Your task to perform on an android device: Open the clock Image 0: 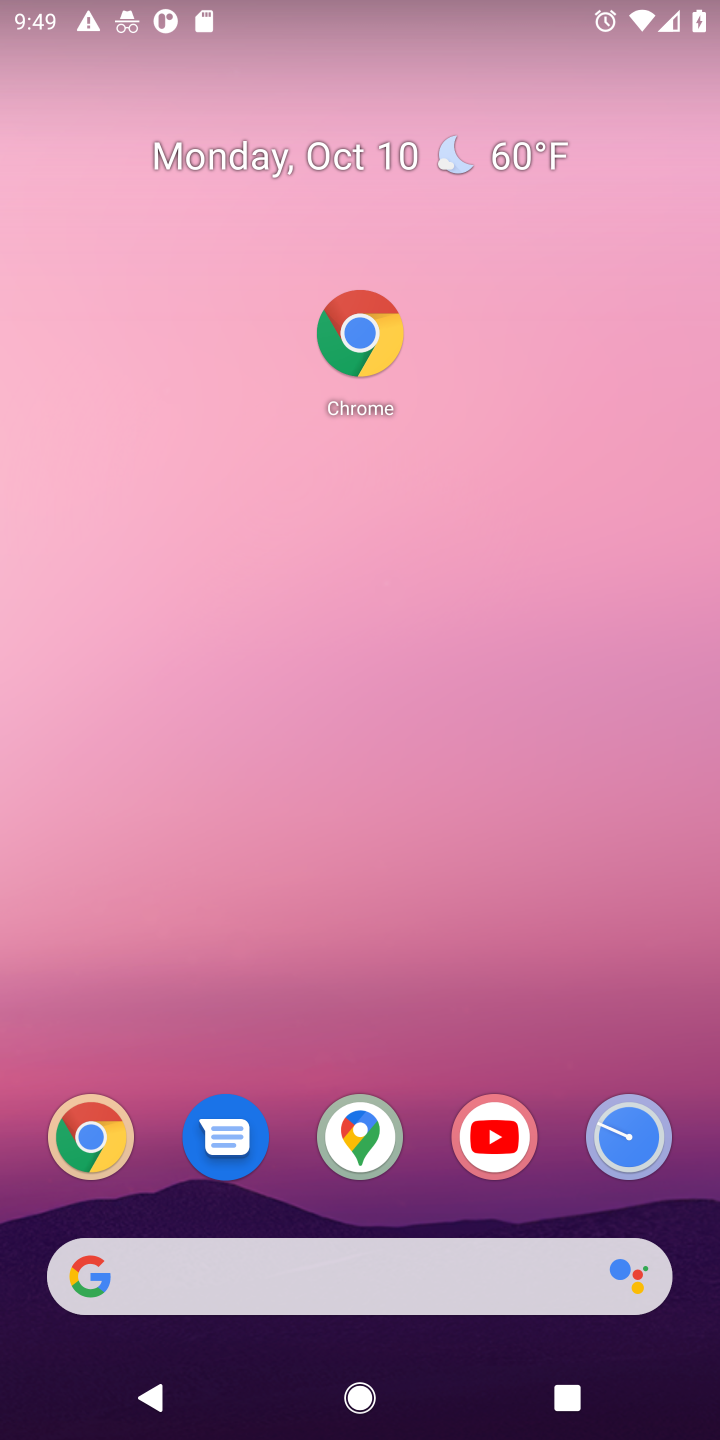
Step 0: click (629, 1138)
Your task to perform on an android device: Open the clock Image 1: 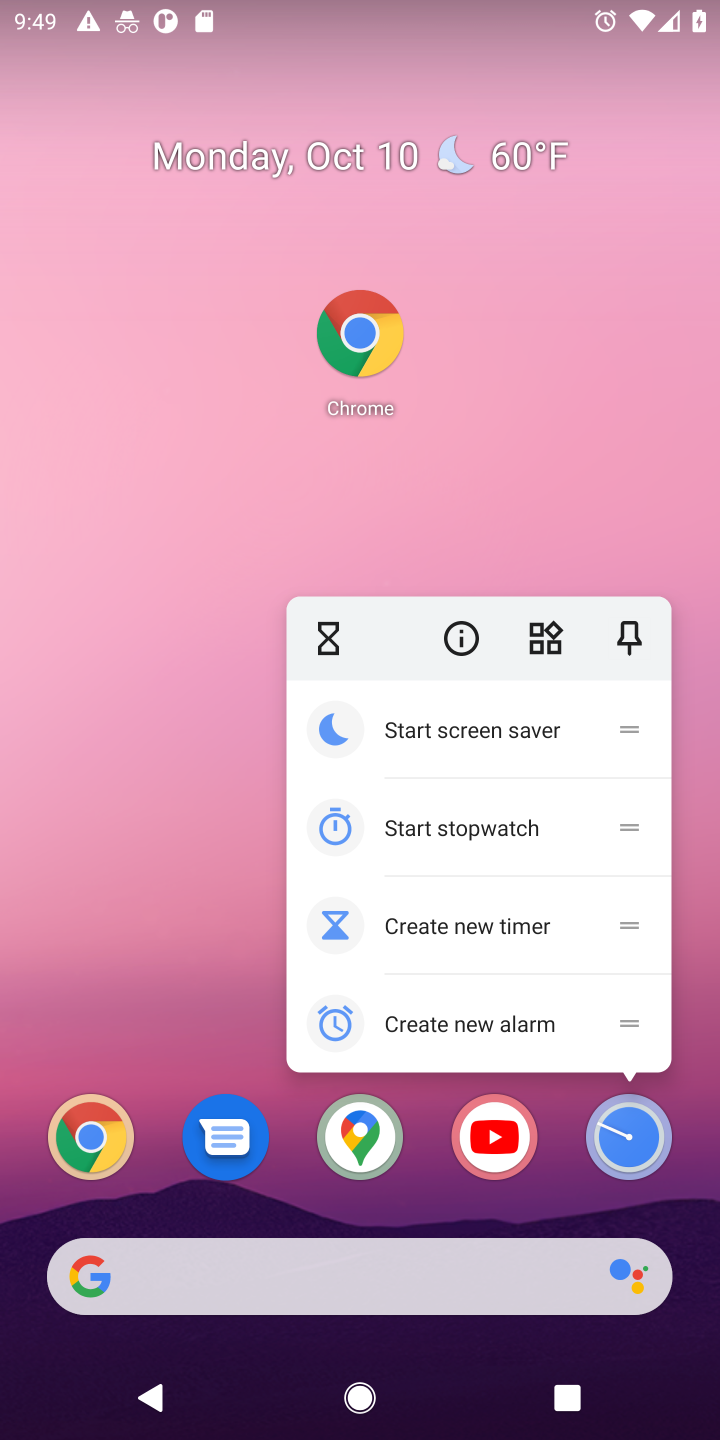
Step 1: click (628, 1132)
Your task to perform on an android device: Open the clock Image 2: 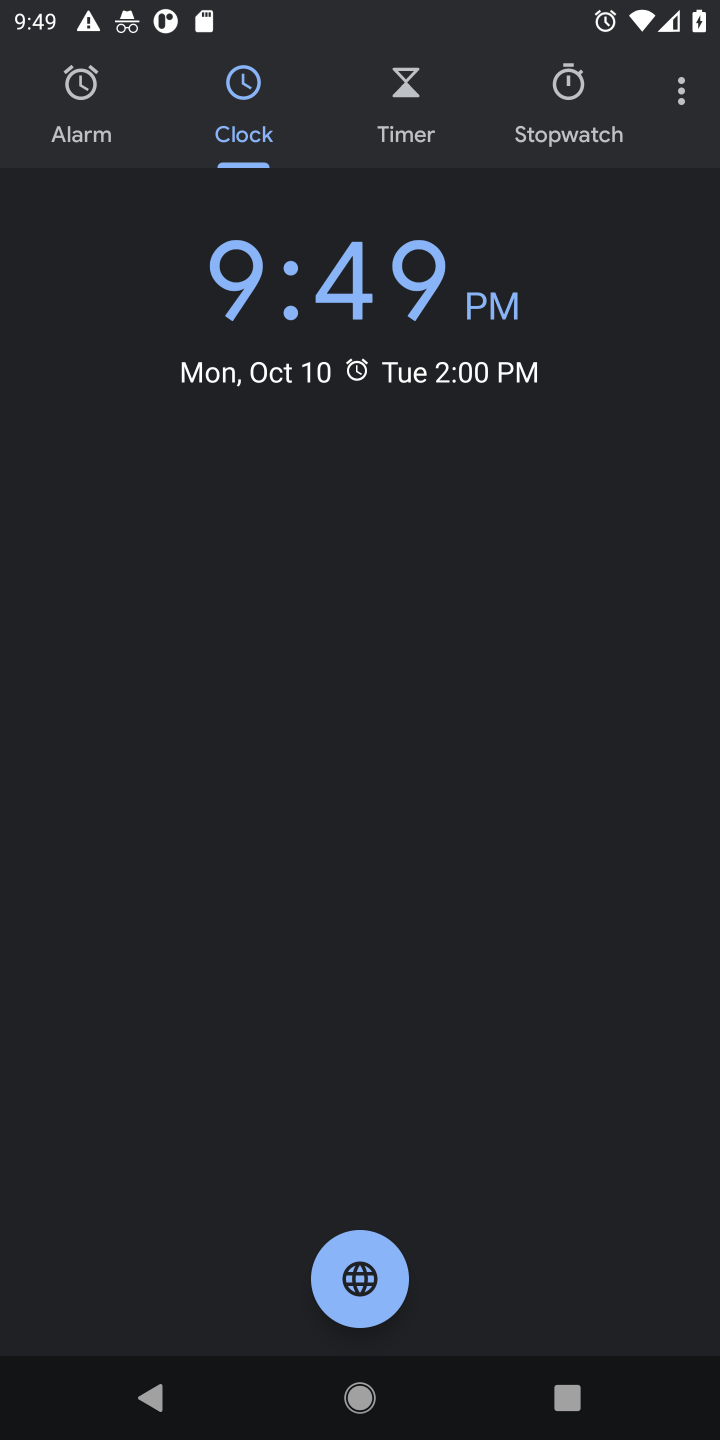
Step 2: task complete